Your task to perform on an android device: create a new album in the google photos Image 0: 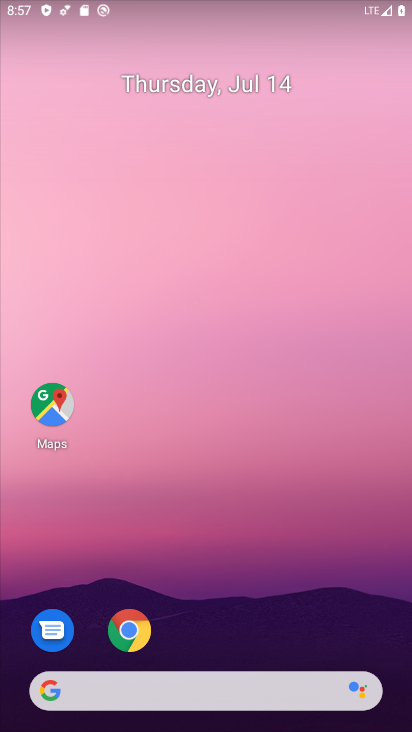
Step 0: drag from (187, 657) to (147, 2)
Your task to perform on an android device: create a new album in the google photos Image 1: 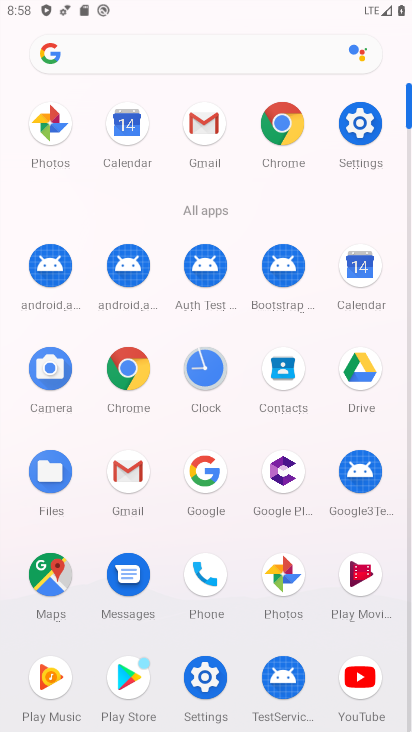
Step 1: click (278, 574)
Your task to perform on an android device: create a new album in the google photos Image 2: 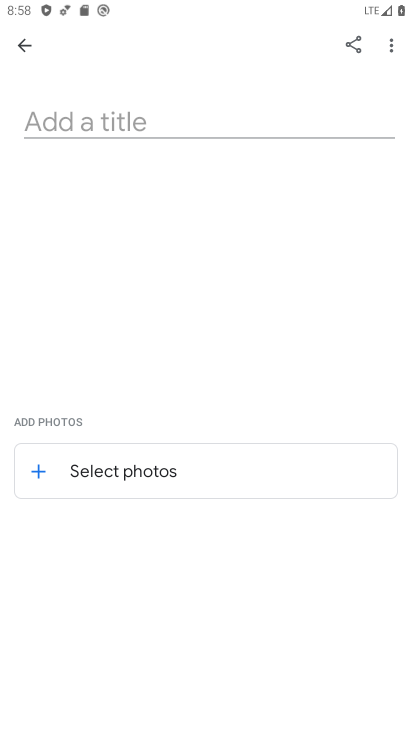
Step 2: click (184, 485)
Your task to perform on an android device: create a new album in the google photos Image 3: 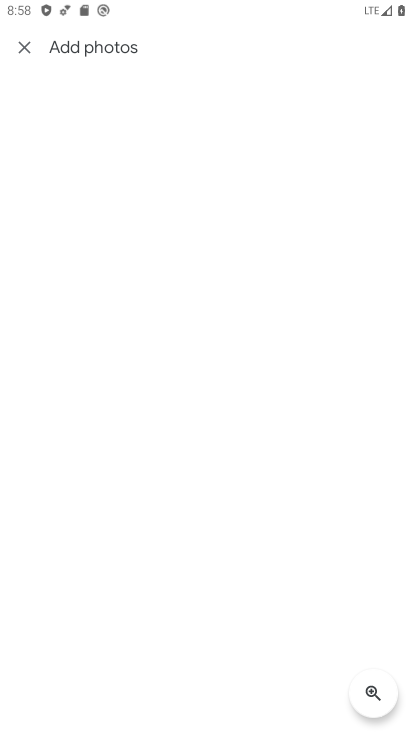
Step 3: task complete